Your task to perform on an android device: What is the capital of Germany? Image 0: 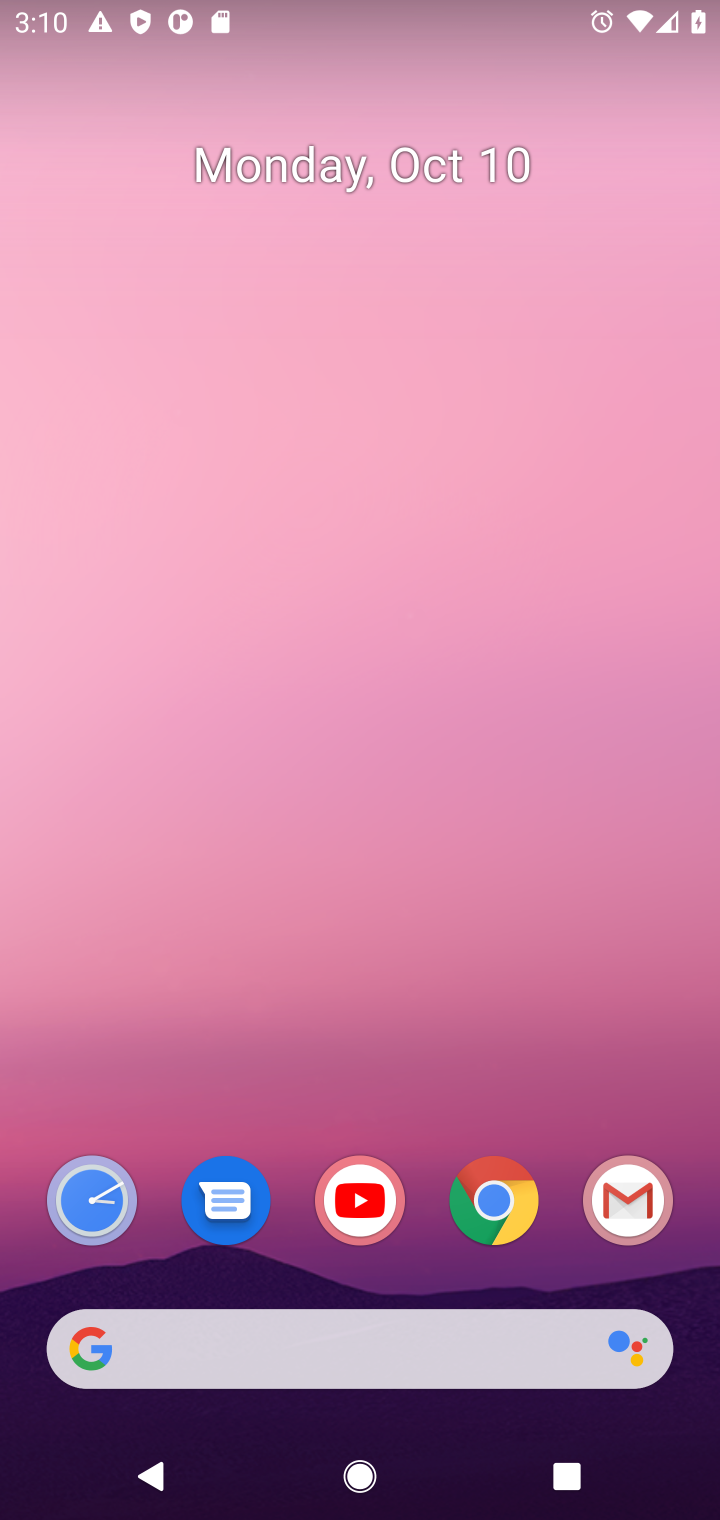
Step 0: click (490, 1221)
Your task to perform on an android device: What is the capital of Germany? Image 1: 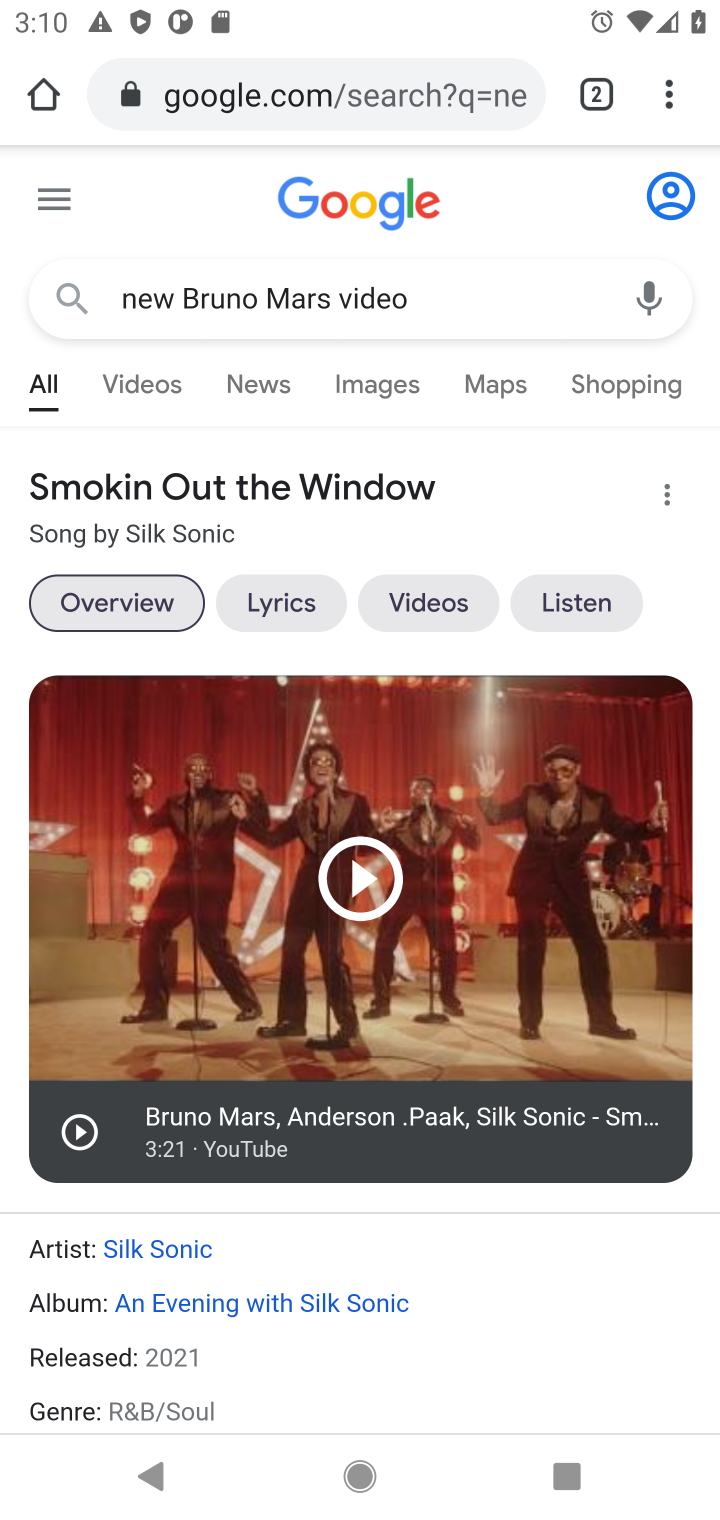
Step 1: click (420, 110)
Your task to perform on an android device: What is the capital of Germany? Image 2: 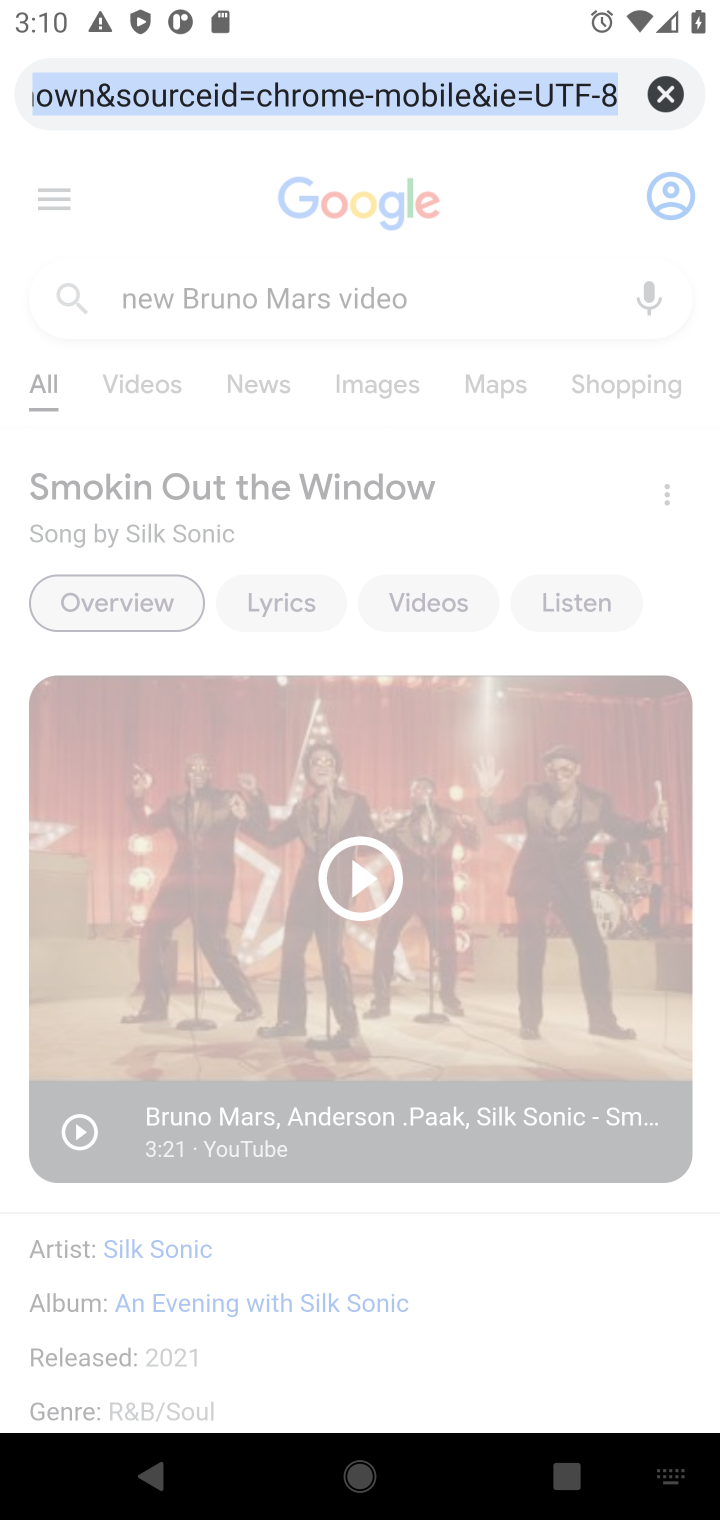
Step 2: type "capital of Germany"
Your task to perform on an android device: What is the capital of Germany? Image 3: 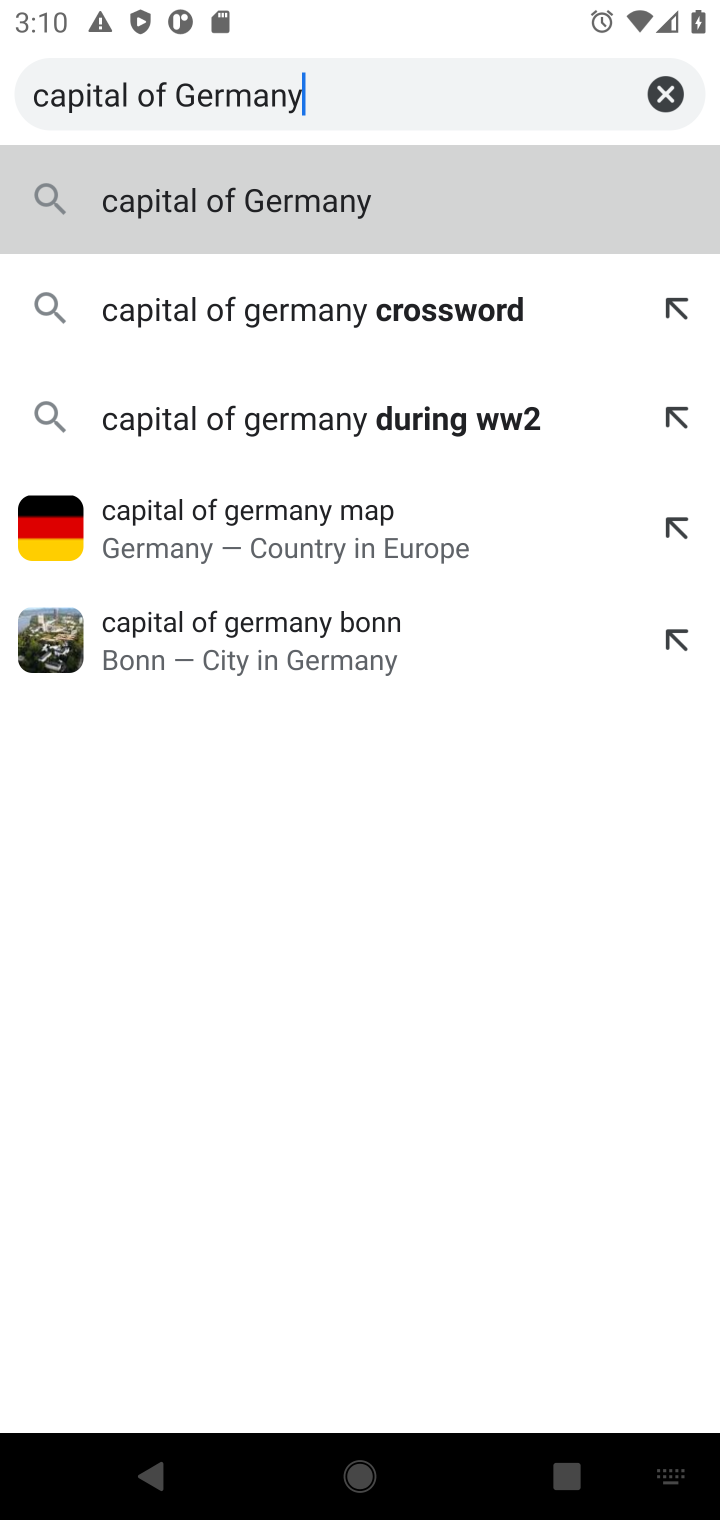
Step 3: click (321, 191)
Your task to perform on an android device: What is the capital of Germany? Image 4: 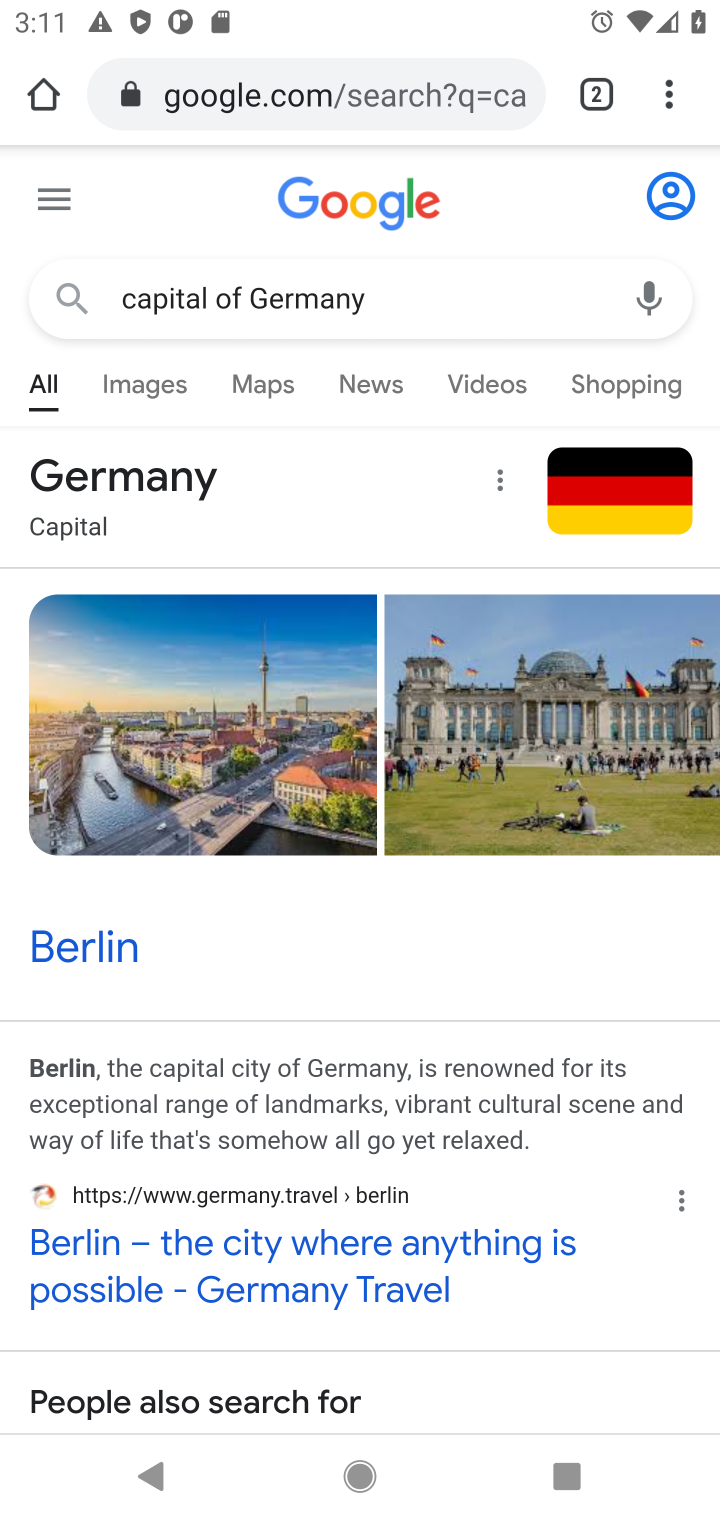
Step 4: task complete